Your task to perform on an android device: turn notification dots off Image 0: 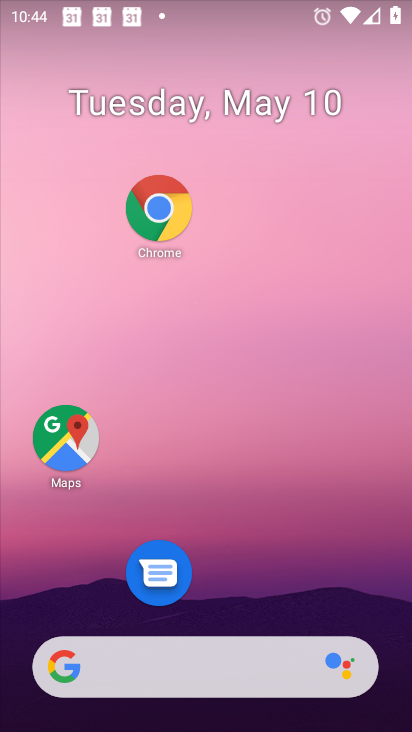
Step 0: drag from (262, 694) to (255, 178)
Your task to perform on an android device: turn notification dots off Image 1: 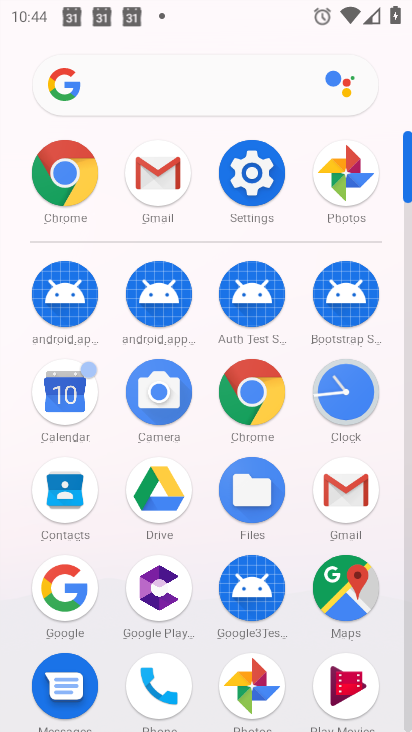
Step 1: click (249, 189)
Your task to perform on an android device: turn notification dots off Image 2: 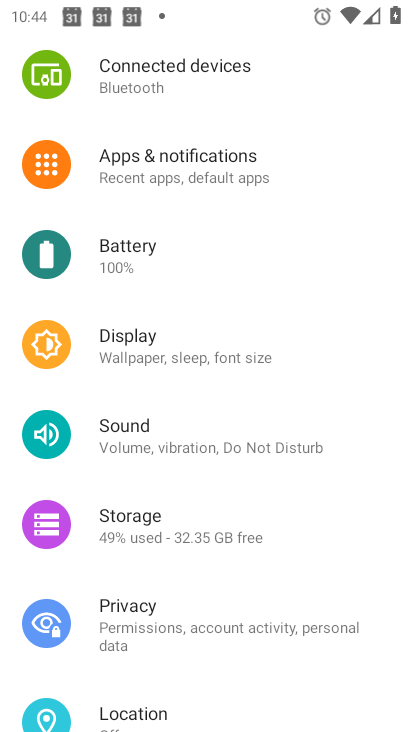
Step 2: drag from (189, 193) to (231, 369)
Your task to perform on an android device: turn notification dots off Image 3: 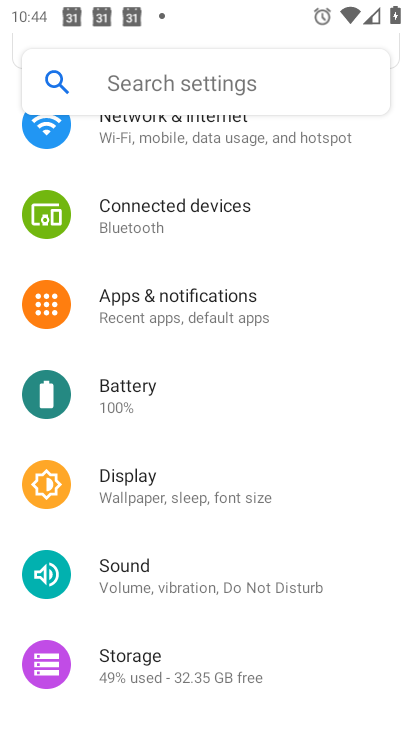
Step 3: click (187, 76)
Your task to perform on an android device: turn notification dots off Image 4: 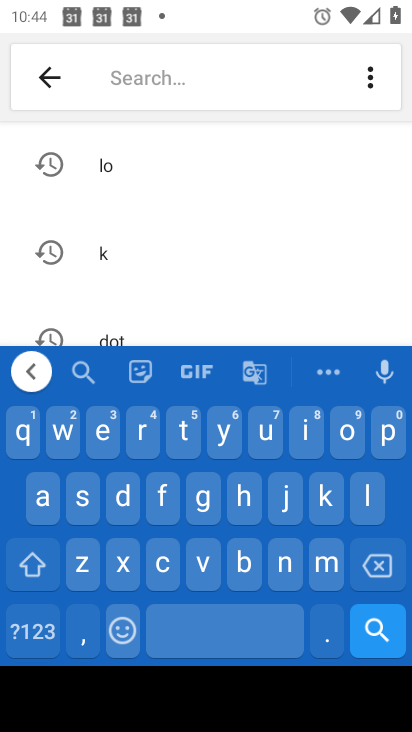
Step 4: click (116, 517)
Your task to perform on an android device: turn notification dots off Image 5: 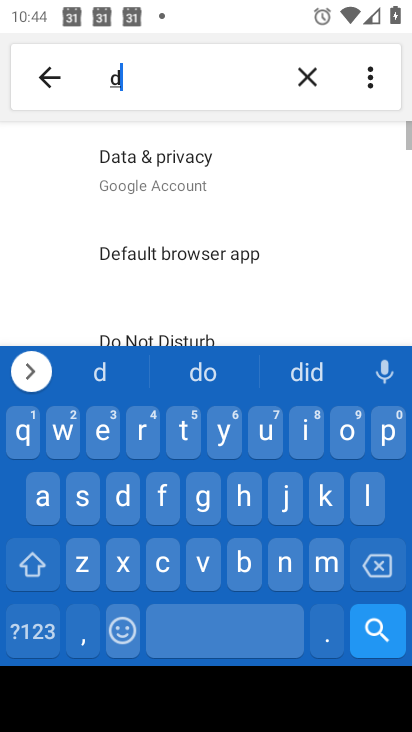
Step 5: click (346, 446)
Your task to perform on an android device: turn notification dots off Image 6: 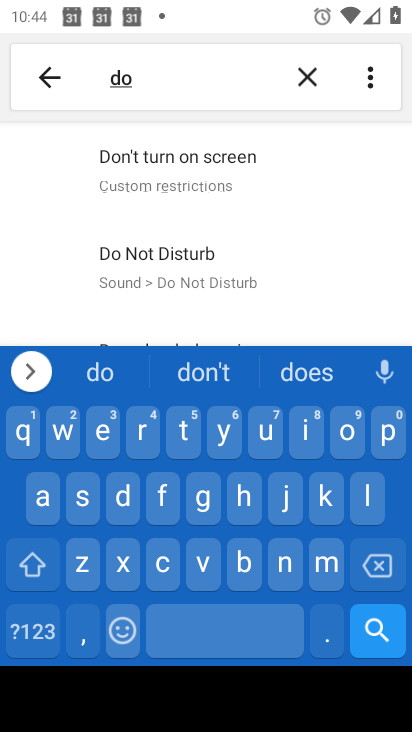
Step 6: click (180, 433)
Your task to perform on an android device: turn notification dots off Image 7: 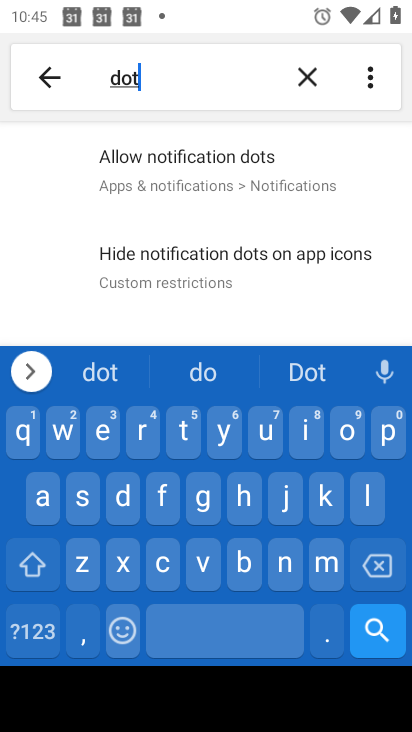
Step 7: click (157, 166)
Your task to perform on an android device: turn notification dots off Image 8: 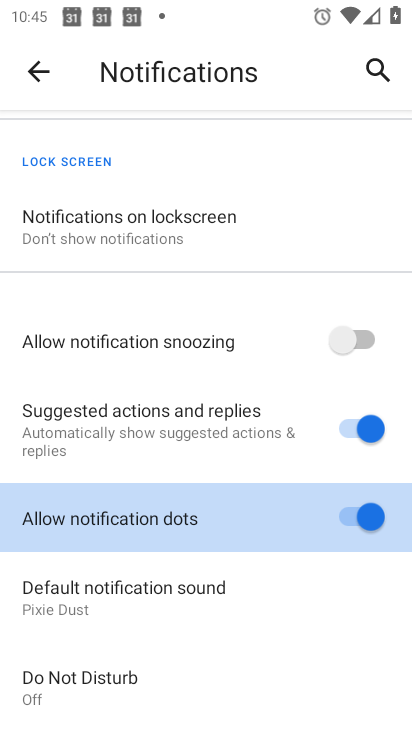
Step 8: click (268, 506)
Your task to perform on an android device: turn notification dots off Image 9: 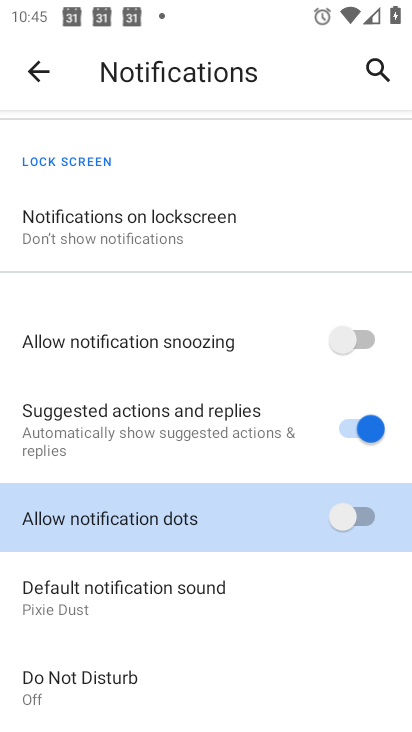
Step 9: task complete